Your task to perform on an android device: turn off notifications in google photos Image 0: 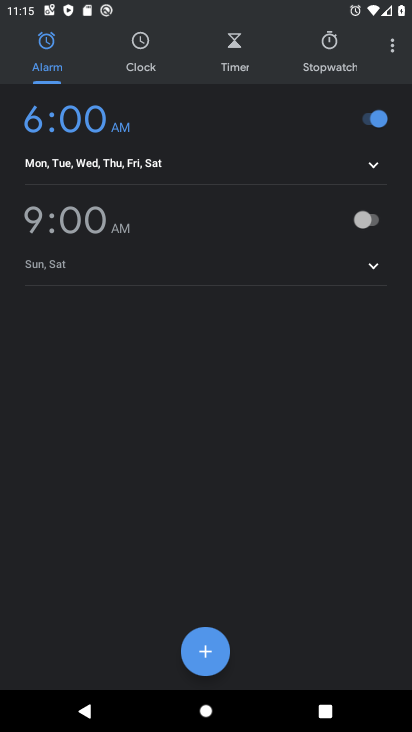
Step 0: press home button
Your task to perform on an android device: turn off notifications in google photos Image 1: 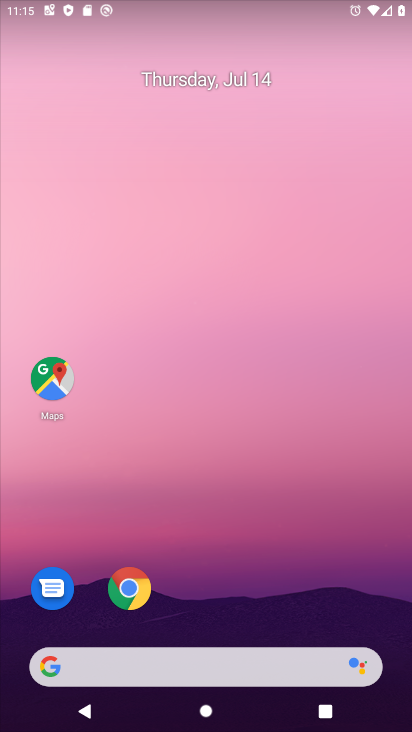
Step 1: drag from (397, 670) to (244, 175)
Your task to perform on an android device: turn off notifications in google photos Image 2: 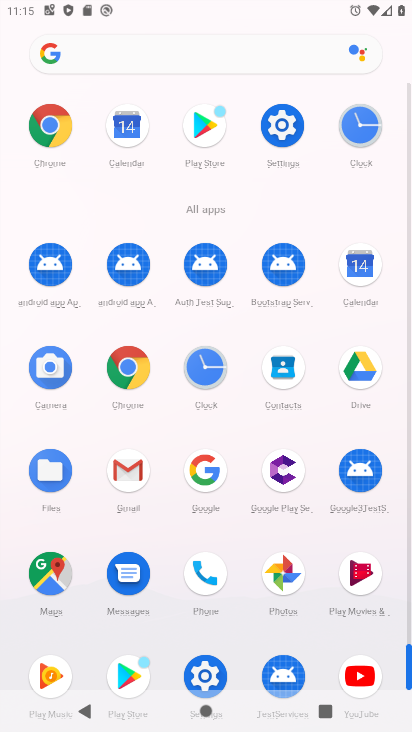
Step 2: click (282, 576)
Your task to perform on an android device: turn off notifications in google photos Image 3: 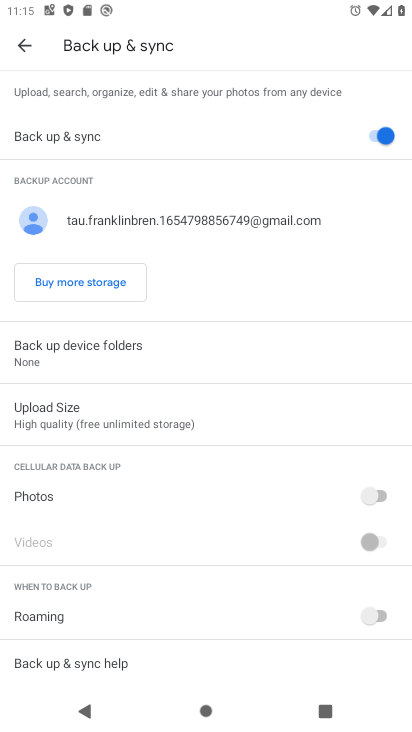
Step 3: press back button
Your task to perform on an android device: turn off notifications in google photos Image 4: 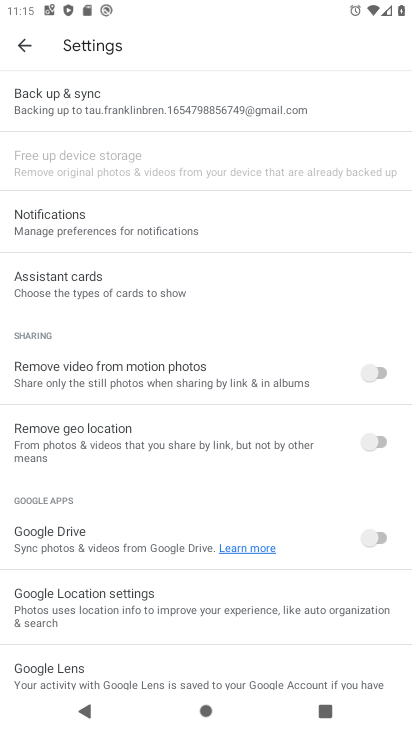
Step 4: click (74, 218)
Your task to perform on an android device: turn off notifications in google photos Image 5: 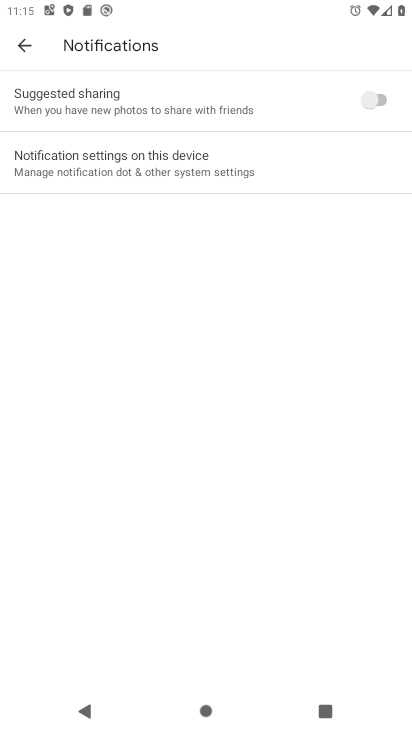
Step 5: click (96, 173)
Your task to perform on an android device: turn off notifications in google photos Image 6: 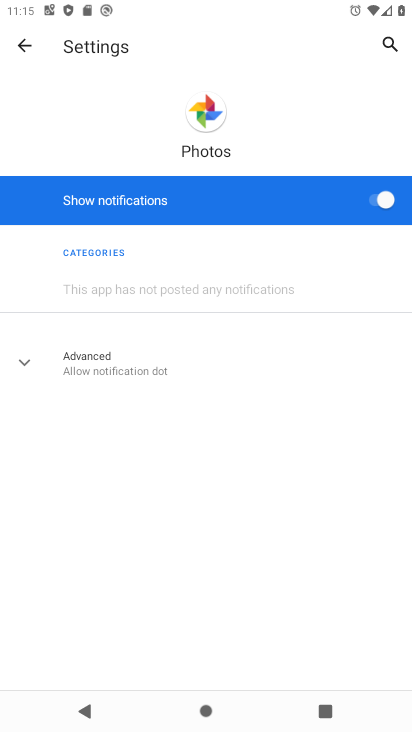
Step 6: click (370, 199)
Your task to perform on an android device: turn off notifications in google photos Image 7: 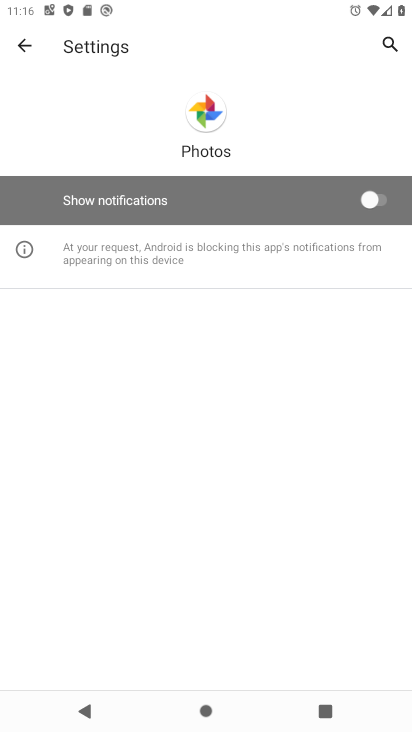
Step 7: task complete